Your task to perform on an android device: delete location history Image 0: 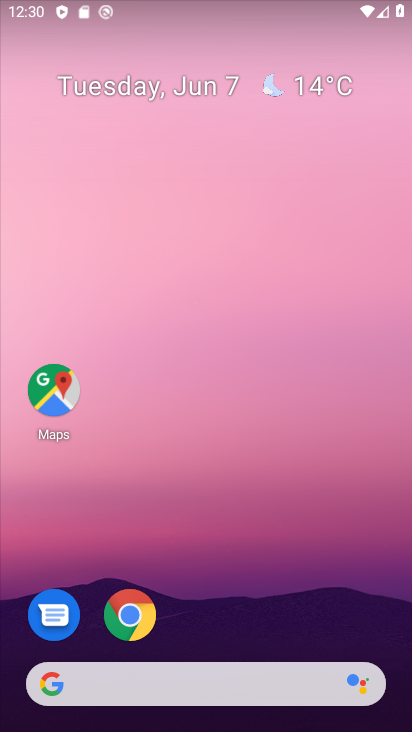
Step 0: drag from (236, 585) to (254, 51)
Your task to perform on an android device: delete location history Image 1: 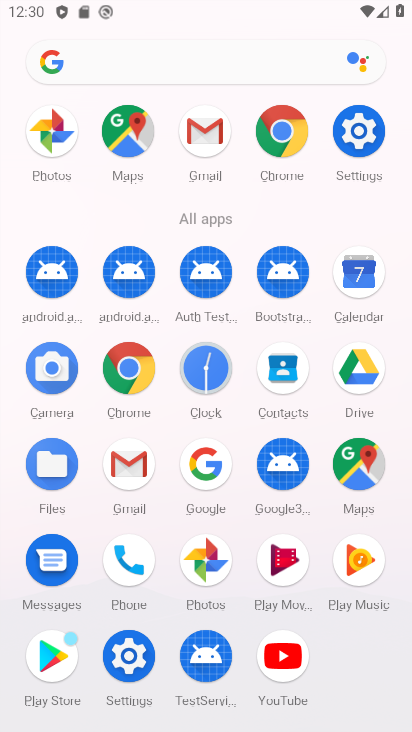
Step 1: click (128, 132)
Your task to perform on an android device: delete location history Image 2: 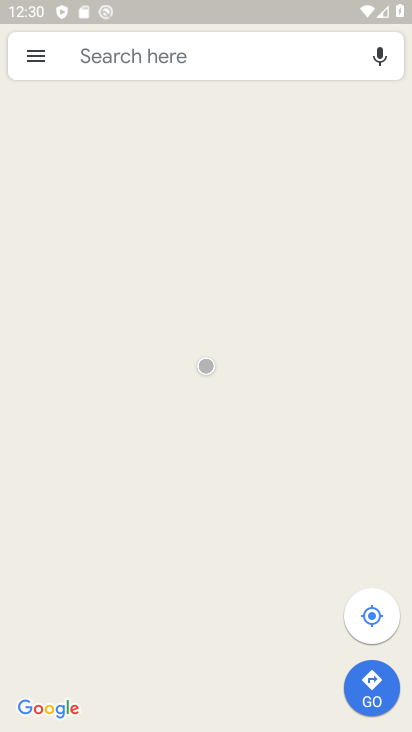
Step 2: click (37, 55)
Your task to perform on an android device: delete location history Image 3: 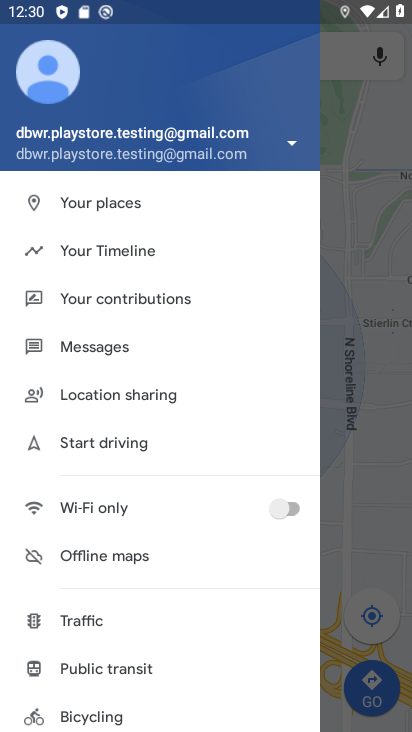
Step 3: drag from (100, 490) to (74, 324)
Your task to perform on an android device: delete location history Image 4: 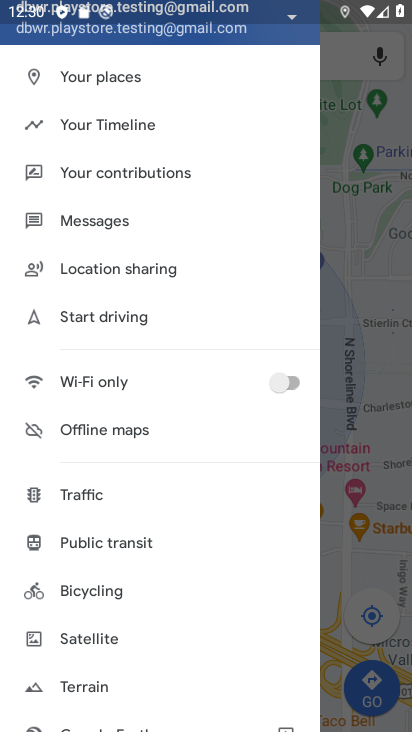
Step 4: drag from (75, 562) to (95, 388)
Your task to perform on an android device: delete location history Image 5: 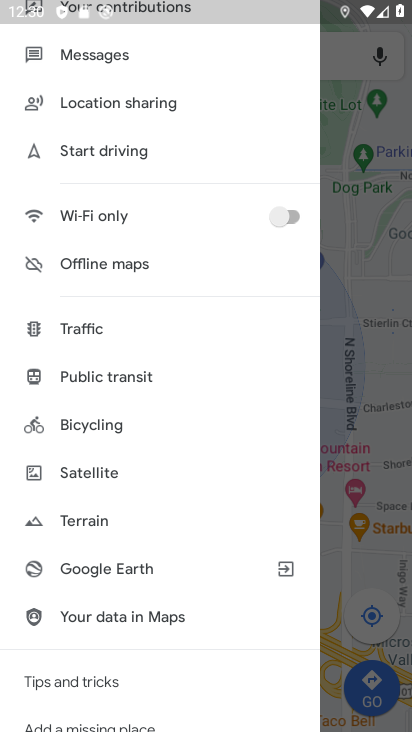
Step 5: drag from (82, 504) to (83, 306)
Your task to perform on an android device: delete location history Image 6: 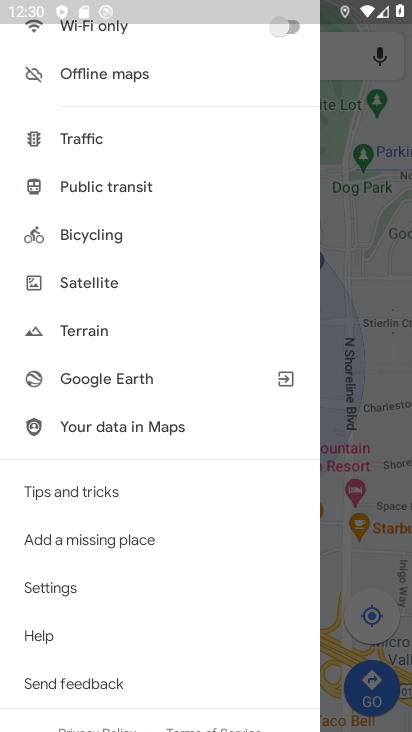
Step 6: click (72, 590)
Your task to perform on an android device: delete location history Image 7: 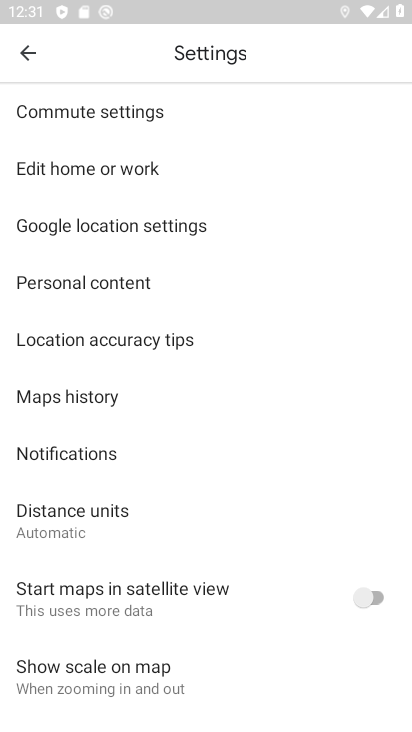
Step 7: click (132, 283)
Your task to perform on an android device: delete location history Image 8: 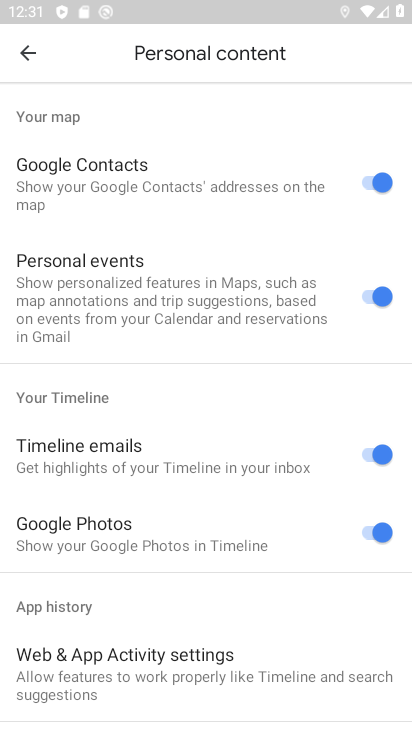
Step 8: drag from (150, 599) to (188, 188)
Your task to perform on an android device: delete location history Image 9: 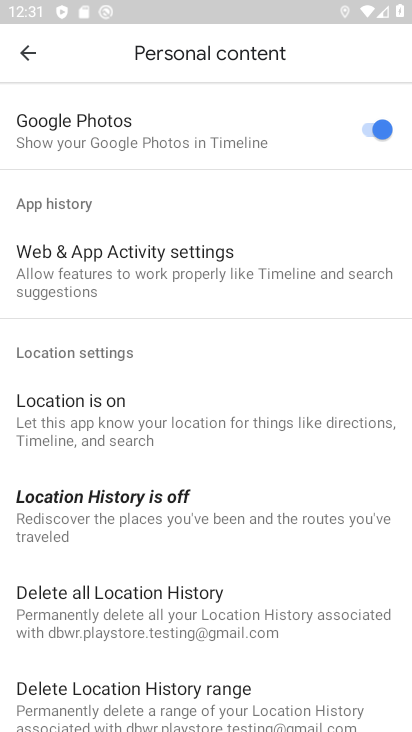
Step 9: drag from (207, 356) to (198, 112)
Your task to perform on an android device: delete location history Image 10: 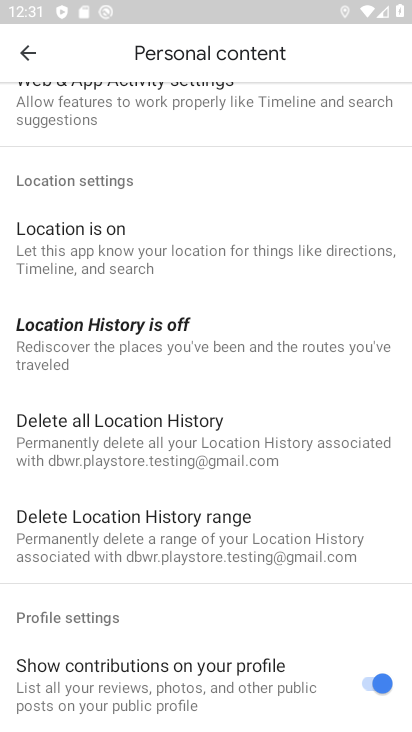
Step 10: drag from (246, 372) to (222, 133)
Your task to perform on an android device: delete location history Image 11: 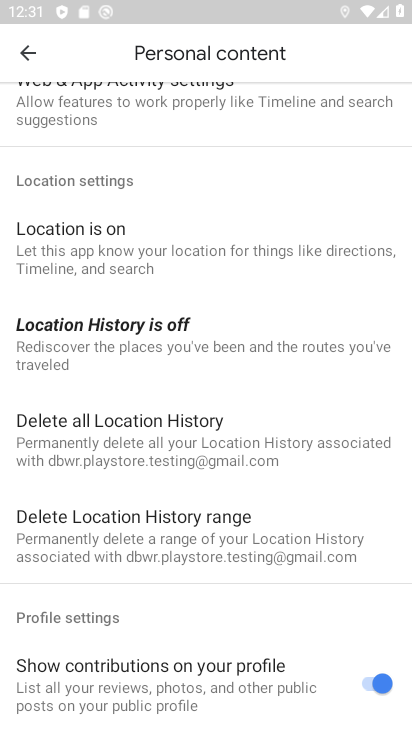
Step 11: click (168, 438)
Your task to perform on an android device: delete location history Image 12: 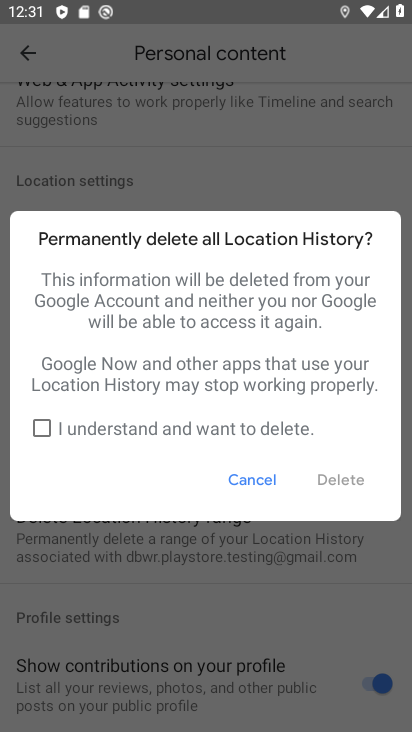
Step 12: click (38, 431)
Your task to perform on an android device: delete location history Image 13: 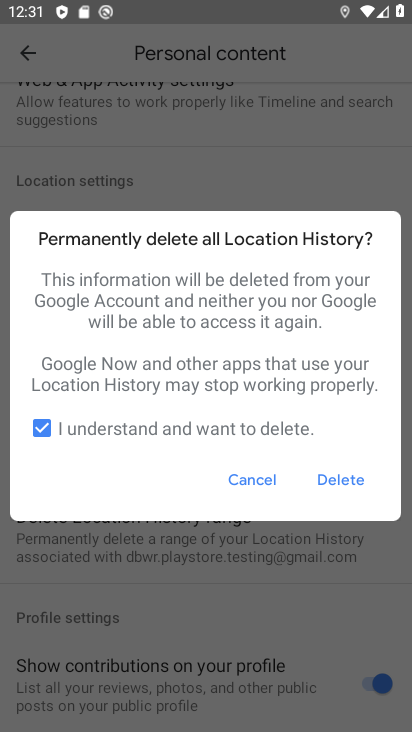
Step 13: click (349, 476)
Your task to perform on an android device: delete location history Image 14: 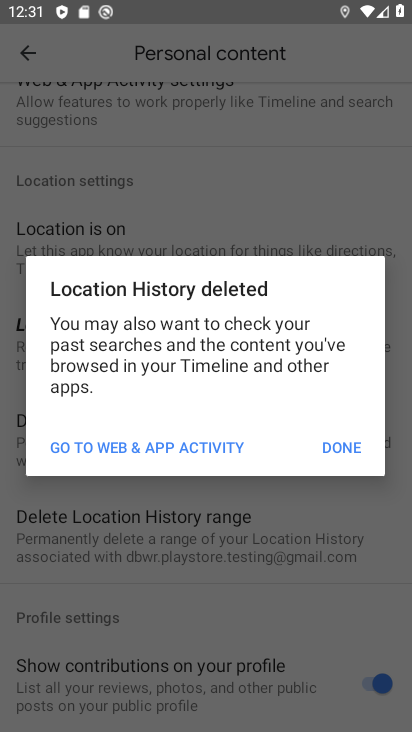
Step 14: click (336, 444)
Your task to perform on an android device: delete location history Image 15: 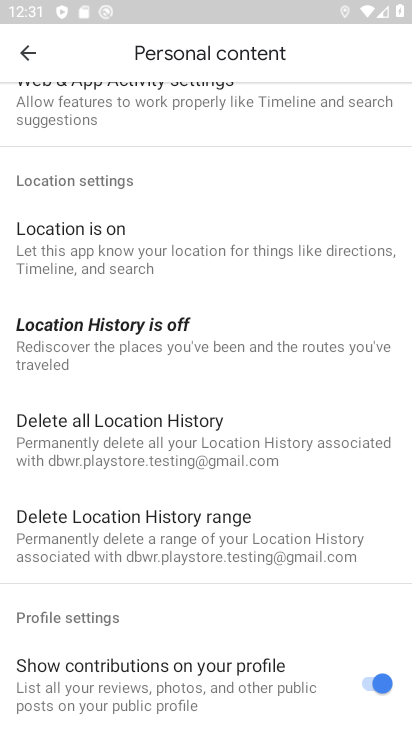
Step 15: task complete